Your task to perform on an android device: create a new album in the google photos Image 0: 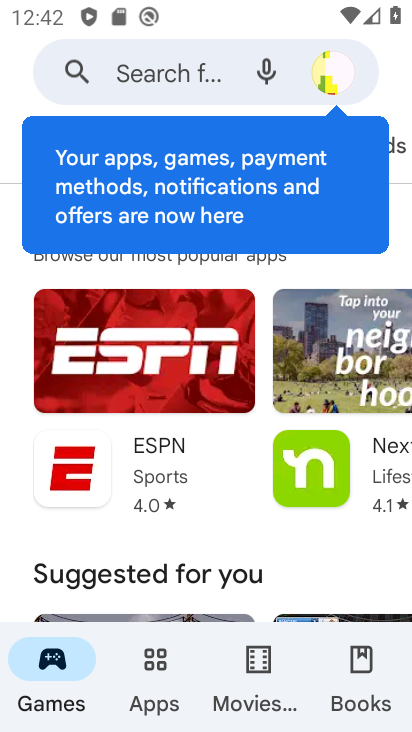
Step 0: task complete